Your task to perform on an android device: Open Youtube and go to "Your channel" Image 0: 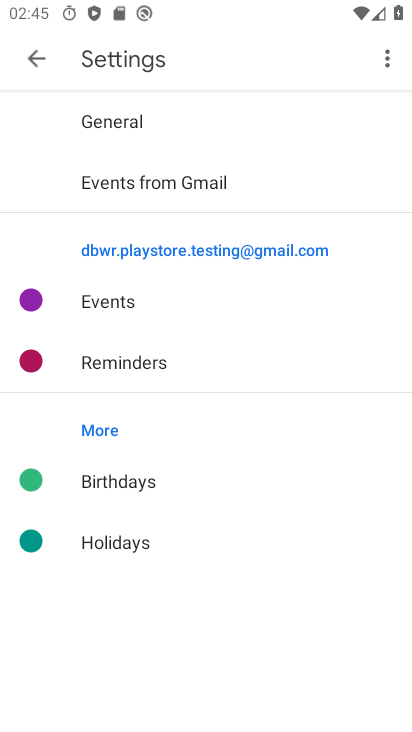
Step 0: drag from (267, 560) to (266, 81)
Your task to perform on an android device: Open Youtube and go to "Your channel" Image 1: 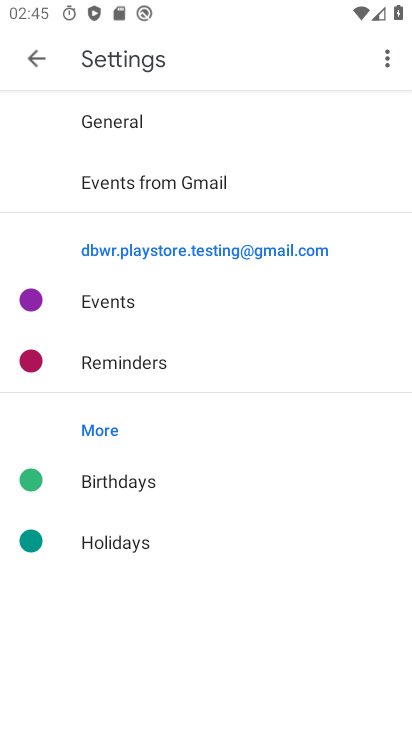
Step 1: press home button
Your task to perform on an android device: Open Youtube and go to "Your channel" Image 2: 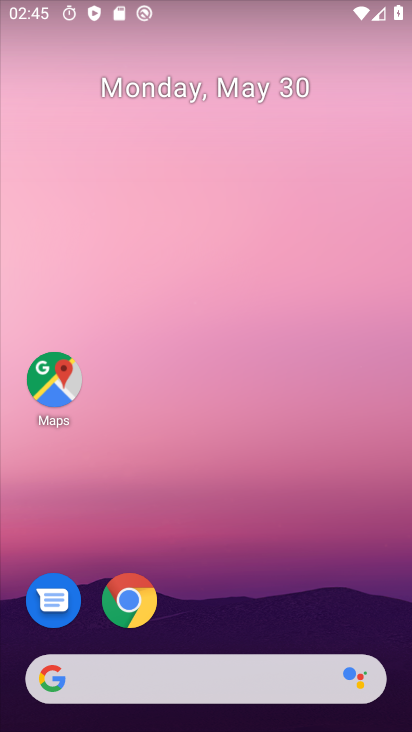
Step 2: drag from (255, 611) to (261, 56)
Your task to perform on an android device: Open Youtube and go to "Your channel" Image 3: 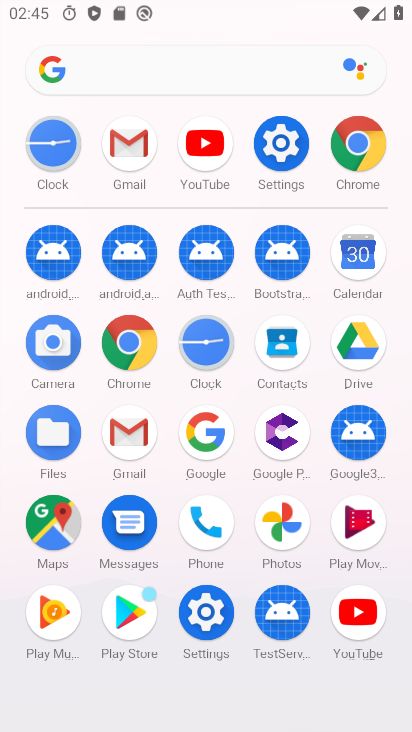
Step 3: click (361, 623)
Your task to perform on an android device: Open Youtube and go to "Your channel" Image 4: 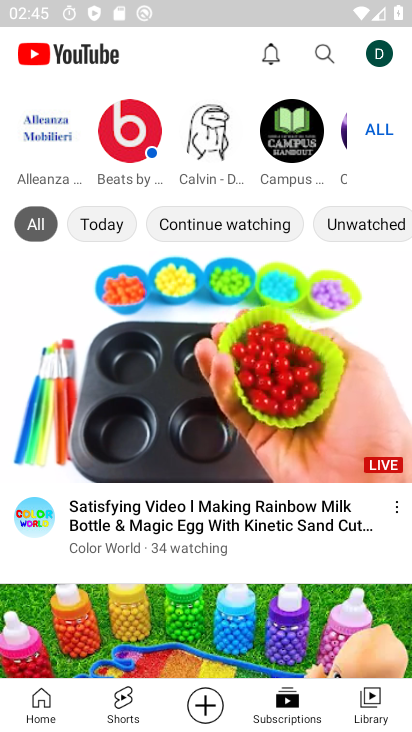
Step 4: click (376, 47)
Your task to perform on an android device: Open Youtube and go to "Your channel" Image 5: 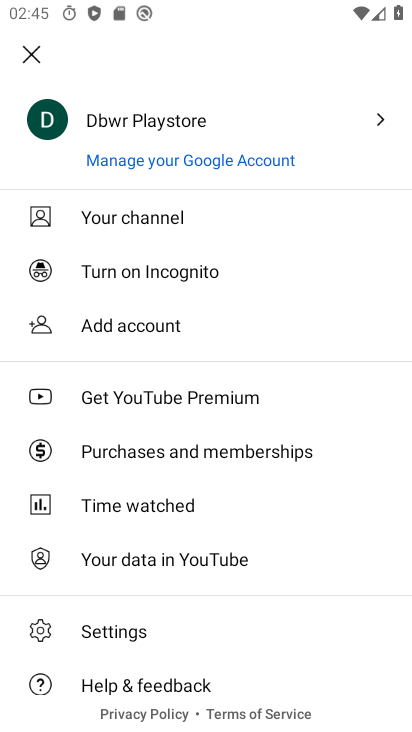
Step 5: click (128, 226)
Your task to perform on an android device: Open Youtube and go to "Your channel" Image 6: 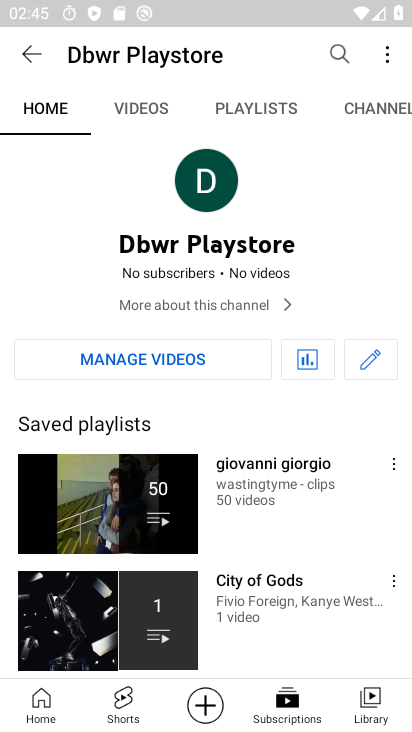
Step 6: task complete